Your task to perform on an android device: Go to Yahoo.com Image 0: 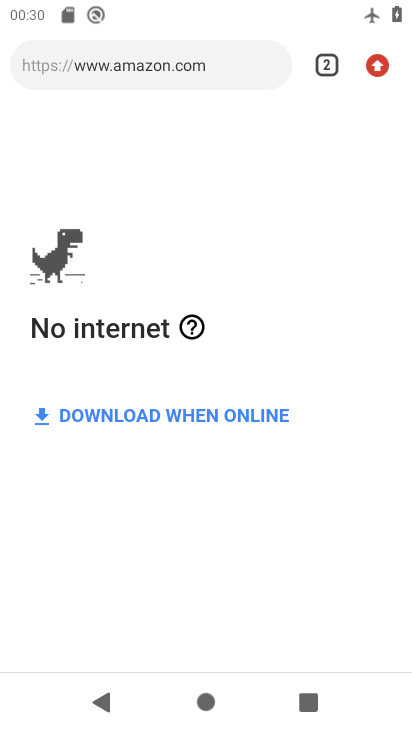
Step 0: click (104, 61)
Your task to perform on an android device: Go to Yahoo.com Image 1: 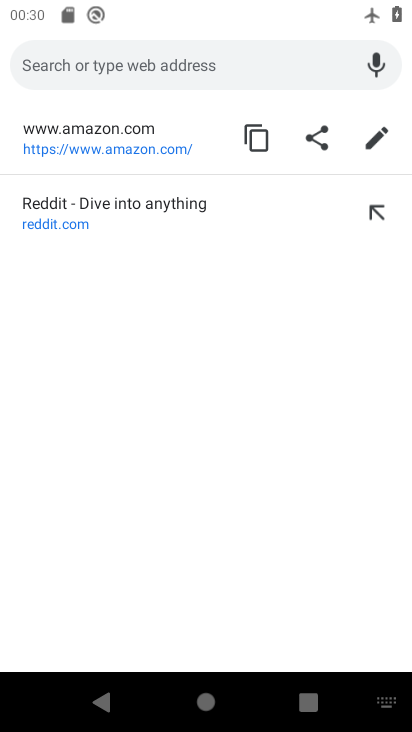
Step 1: type "yahoo.com"
Your task to perform on an android device: Go to Yahoo.com Image 2: 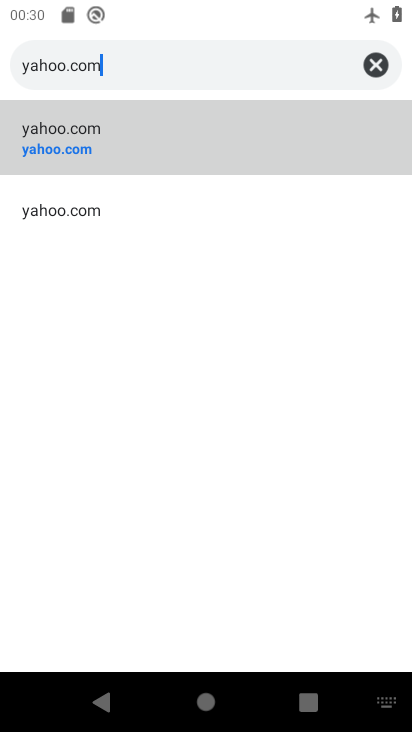
Step 2: click (71, 141)
Your task to perform on an android device: Go to Yahoo.com Image 3: 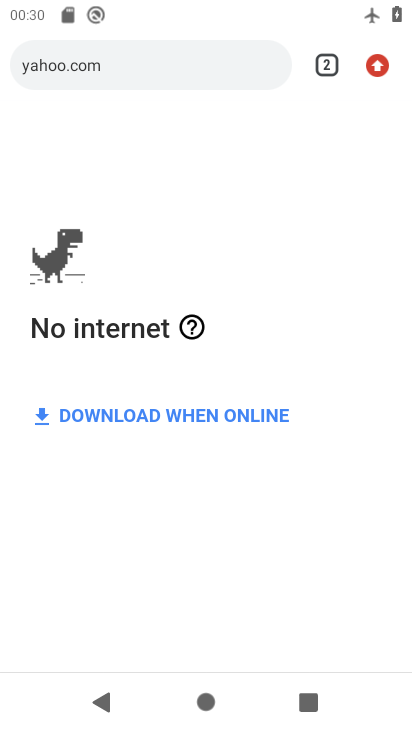
Step 3: task complete